Your task to perform on an android device: Open the Play Movies app and select the watchlist tab. Image 0: 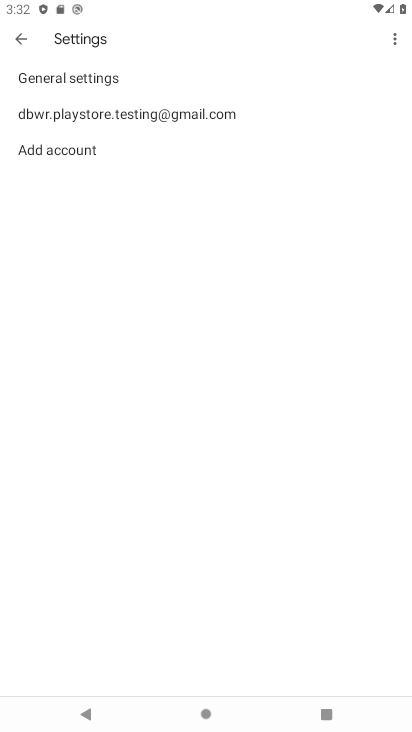
Step 0: press home button
Your task to perform on an android device: Open the Play Movies app and select the watchlist tab. Image 1: 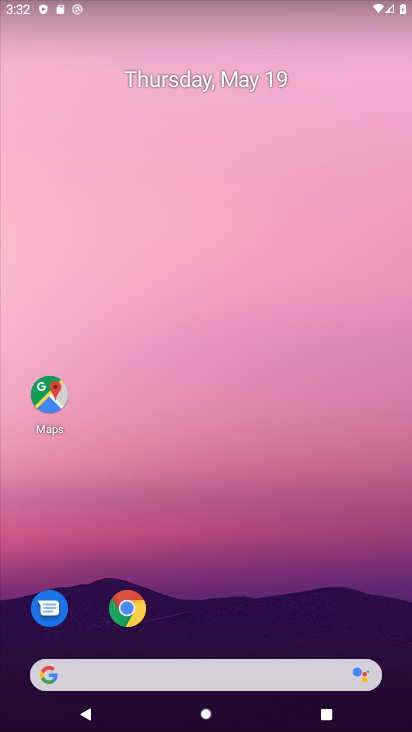
Step 1: drag from (175, 663) to (177, 209)
Your task to perform on an android device: Open the Play Movies app and select the watchlist tab. Image 2: 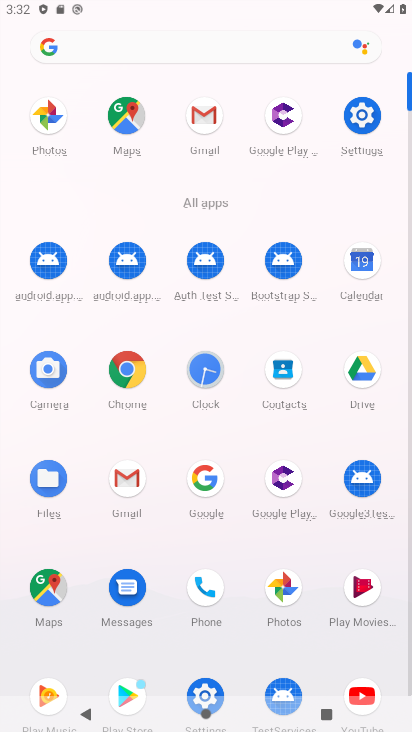
Step 2: click (354, 589)
Your task to perform on an android device: Open the Play Movies app and select the watchlist tab. Image 3: 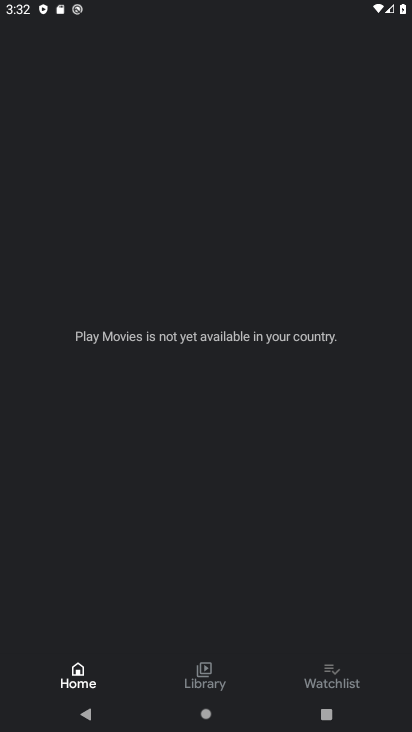
Step 3: click (331, 670)
Your task to perform on an android device: Open the Play Movies app and select the watchlist tab. Image 4: 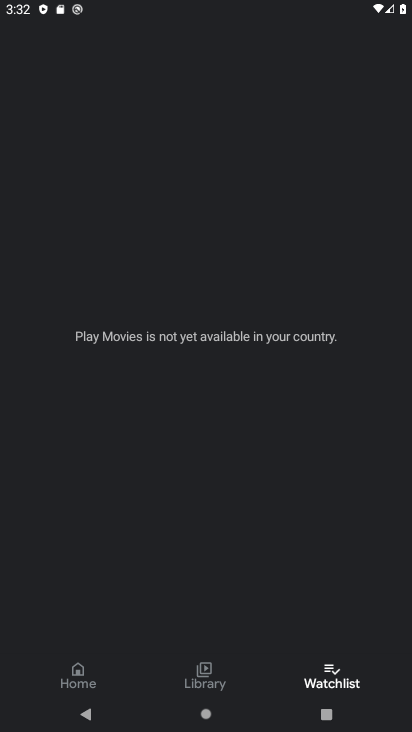
Step 4: task complete